Your task to perform on an android device: Open the calendar app, open the side menu, and click the "Day" option Image 0: 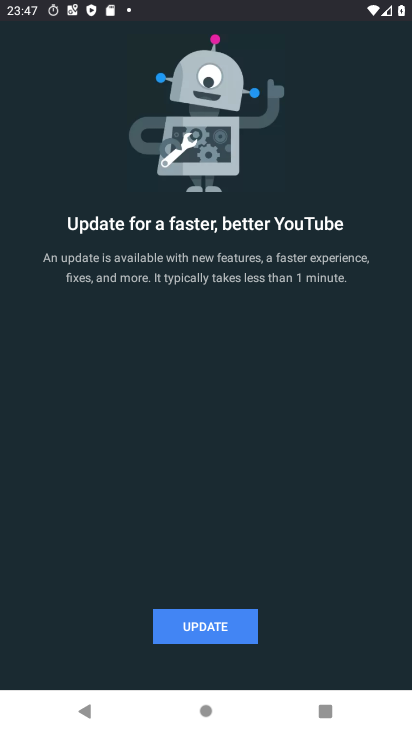
Step 0: press home button
Your task to perform on an android device: Open the calendar app, open the side menu, and click the "Day" option Image 1: 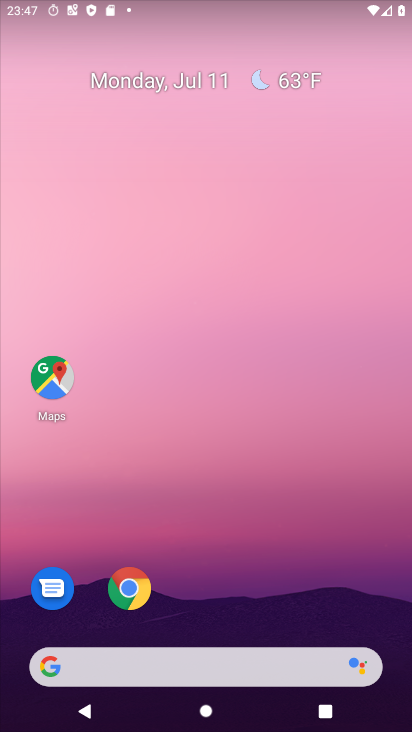
Step 1: drag from (233, 724) to (224, 184)
Your task to perform on an android device: Open the calendar app, open the side menu, and click the "Day" option Image 2: 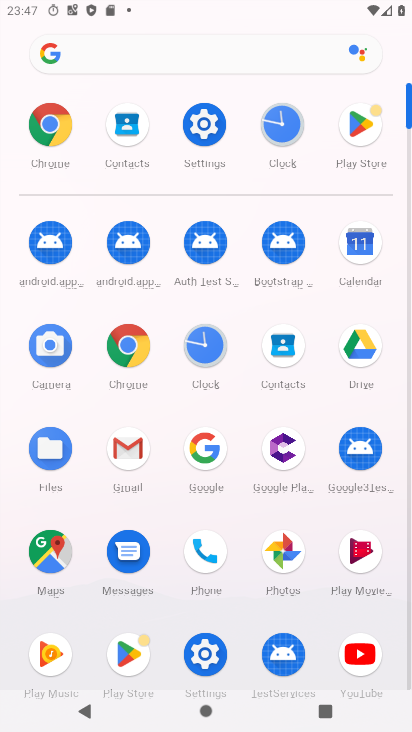
Step 2: click (367, 241)
Your task to perform on an android device: Open the calendar app, open the side menu, and click the "Day" option Image 3: 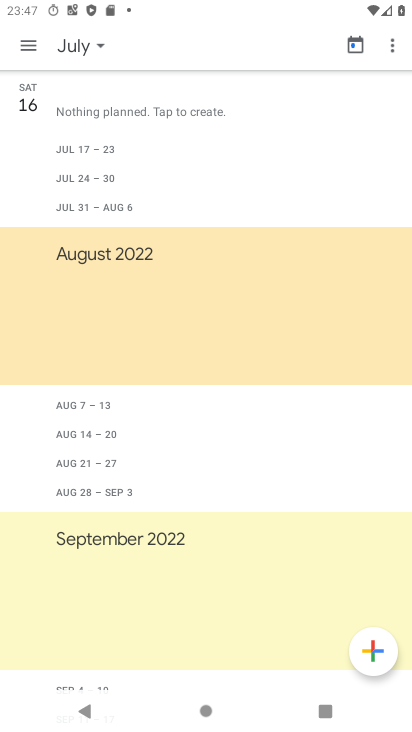
Step 3: click (26, 43)
Your task to perform on an android device: Open the calendar app, open the side menu, and click the "Day" option Image 4: 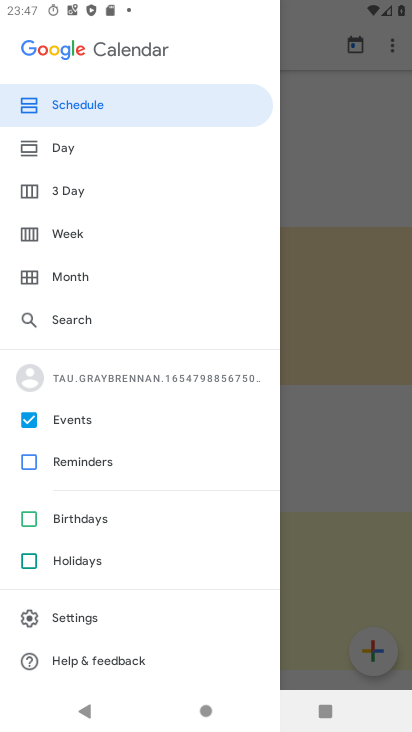
Step 4: click (63, 150)
Your task to perform on an android device: Open the calendar app, open the side menu, and click the "Day" option Image 5: 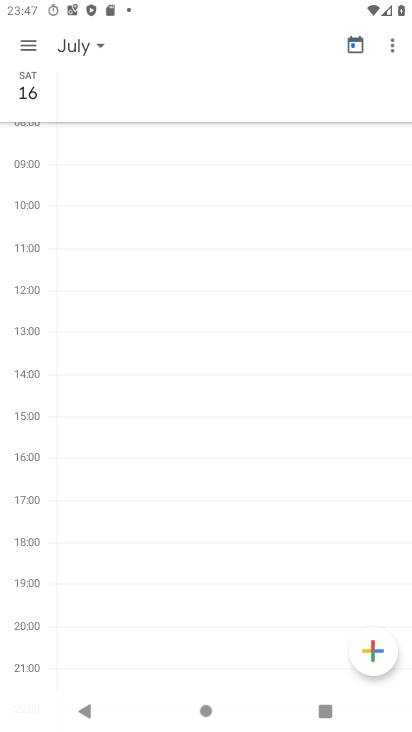
Step 5: task complete